Your task to perform on an android device: Open the map Image 0: 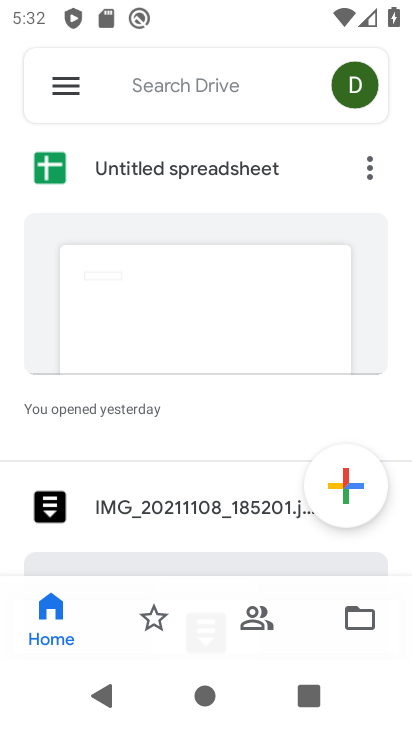
Step 0: press home button
Your task to perform on an android device: Open the map Image 1: 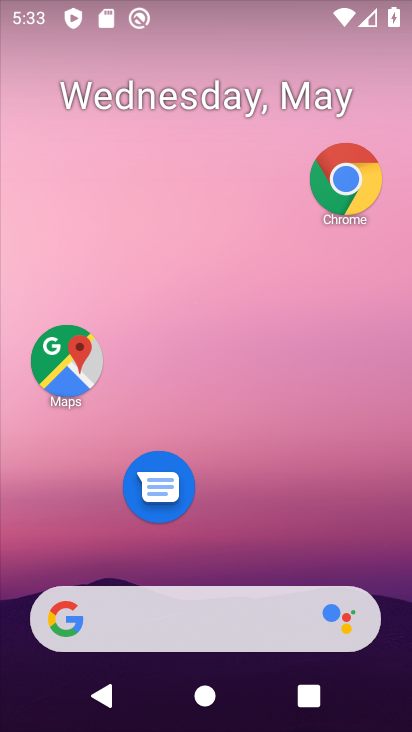
Step 1: click (73, 382)
Your task to perform on an android device: Open the map Image 2: 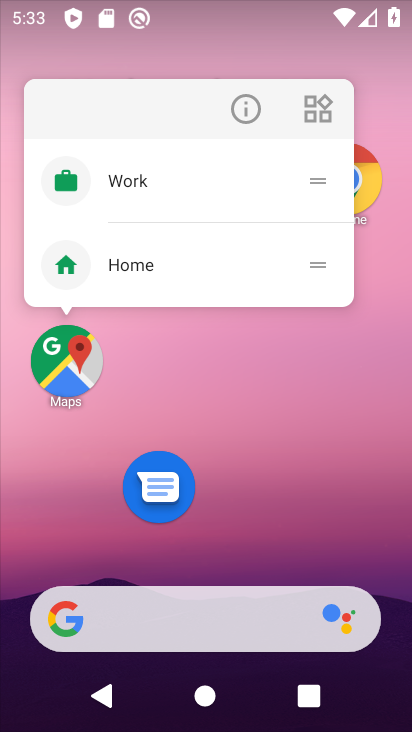
Step 2: click (73, 382)
Your task to perform on an android device: Open the map Image 3: 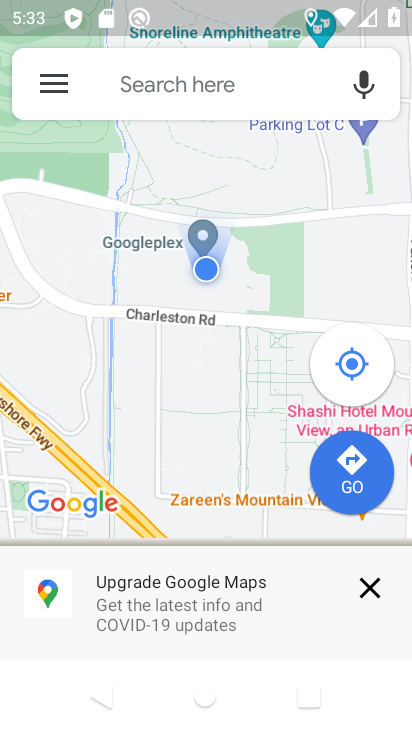
Step 3: click (357, 592)
Your task to perform on an android device: Open the map Image 4: 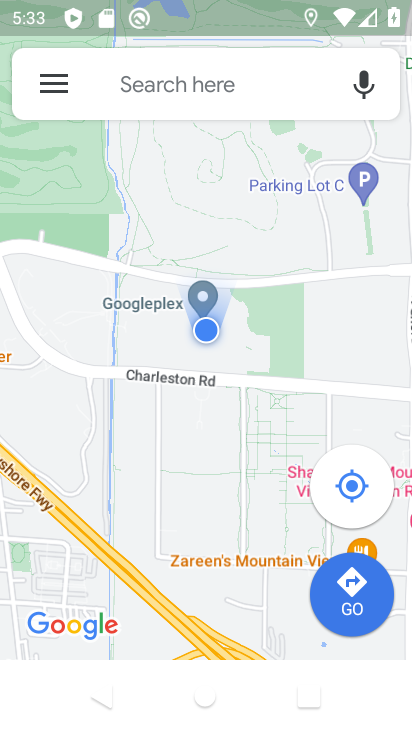
Step 4: task complete